Your task to perform on an android device: Go to settings Image 0: 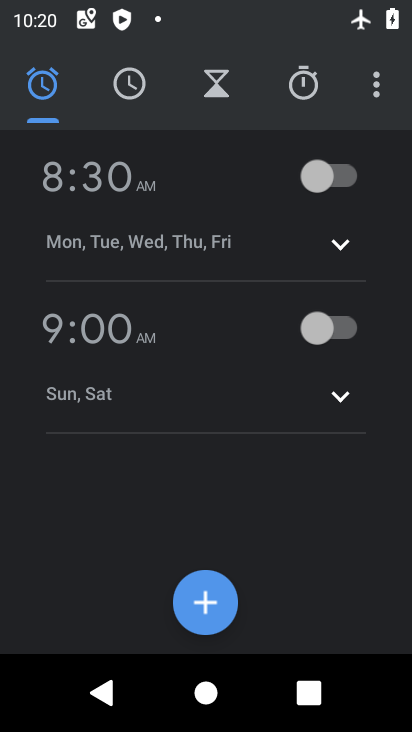
Step 0: press home button
Your task to perform on an android device: Go to settings Image 1: 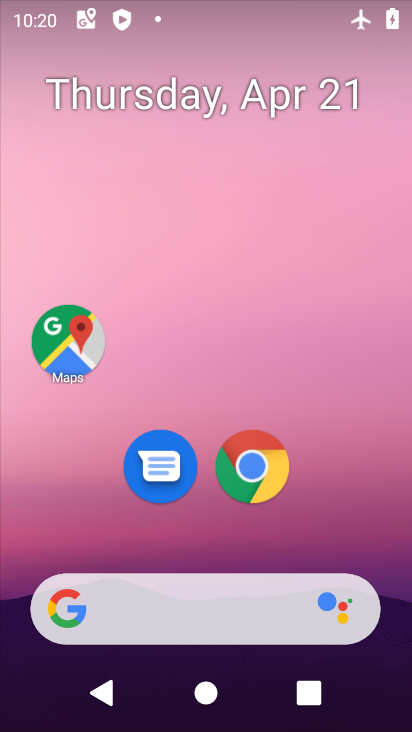
Step 1: drag from (356, 550) to (286, 7)
Your task to perform on an android device: Go to settings Image 2: 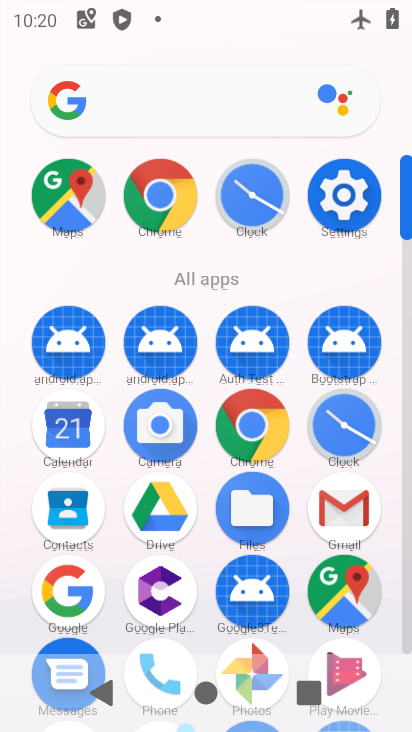
Step 2: click (358, 210)
Your task to perform on an android device: Go to settings Image 3: 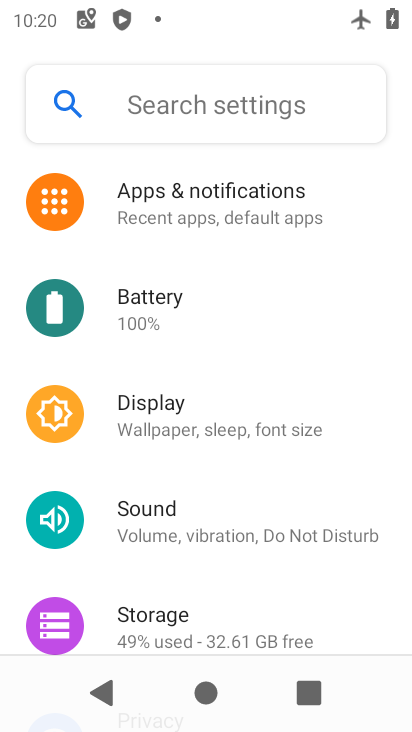
Step 3: task complete